Your task to perform on an android device: Search for the best rated headphones on AliExpress. Image 0: 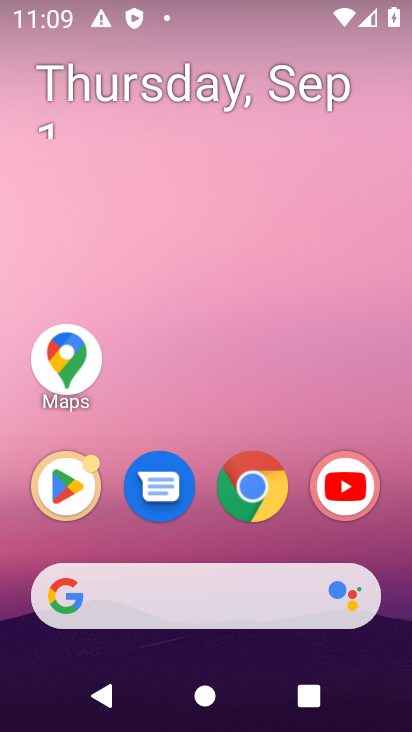
Step 0: task complete
Your task to perform on an android device: Search for the best rated headphones on AliExpress. Image 1: 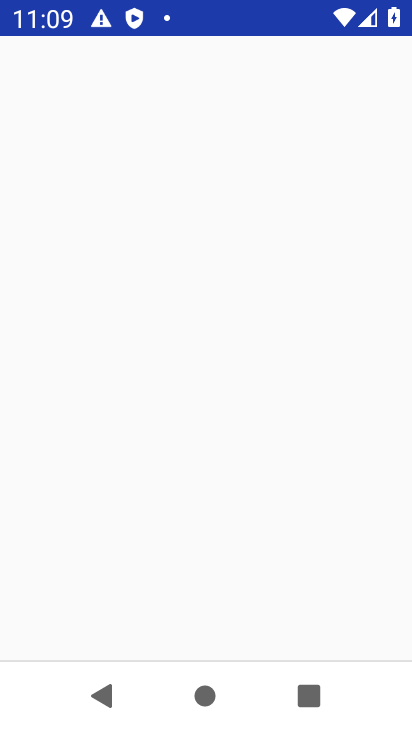
Step 1: task complete